Your task to perform on an android device: turn on improve location accuracy Image 0: 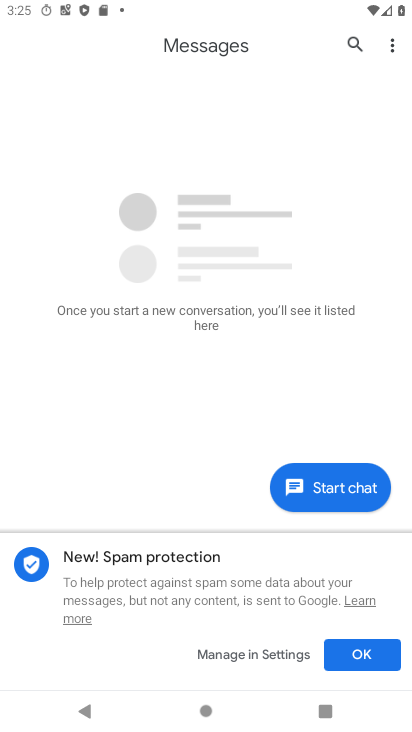
Step 0: drag from (224, 16) to (244, 555)
Your task to perform on an android device: turn on improve location accuracy Image 1: 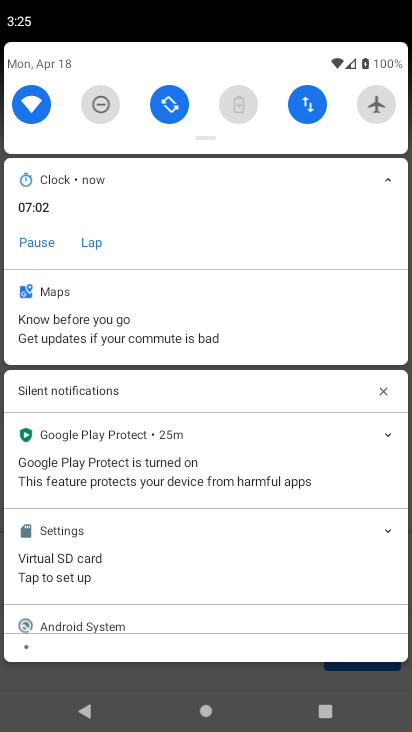
Step 1: drag from (141, 57) to (243, 674)
Your task to perform on an android device: turn on improve location accuracy Image 2: 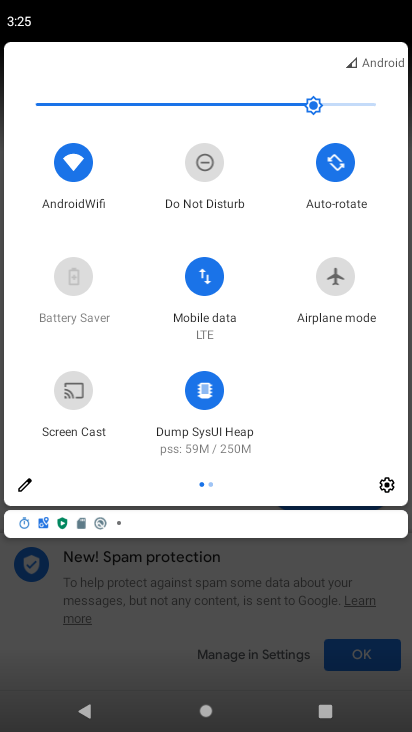
Step 2: click (386, 490)
Your task to perform on an android device: turn on improve location accuracy Image 3: 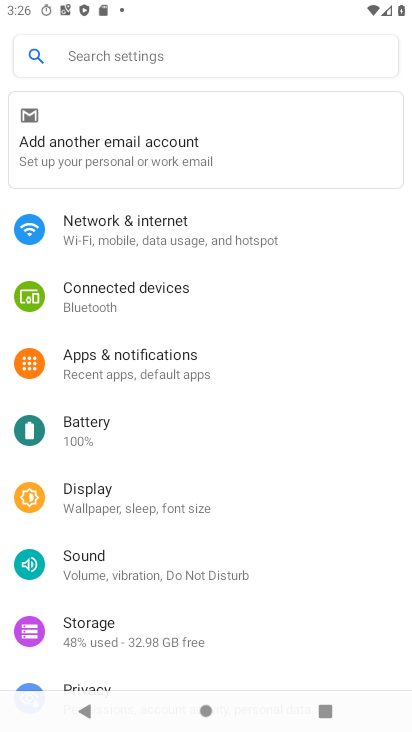
Step 3: drag from (175, 574) to (164, 205)
Your task to perform on an android device: turn on improve location accuracy Image 4: 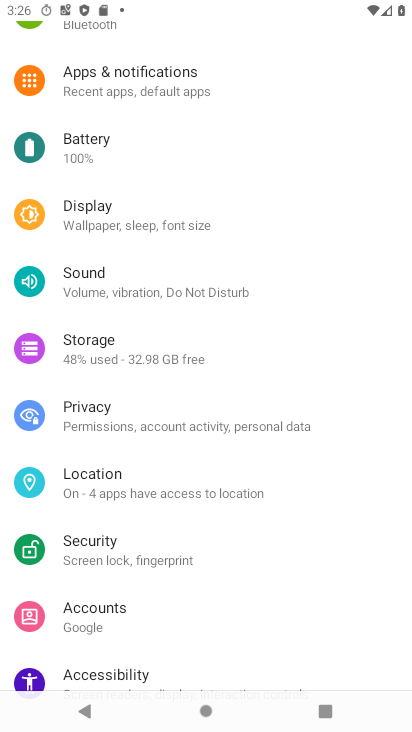
Step 4: click (85, 484)
Your task to perform on an android device: turn on improve location accuracy Image 5: 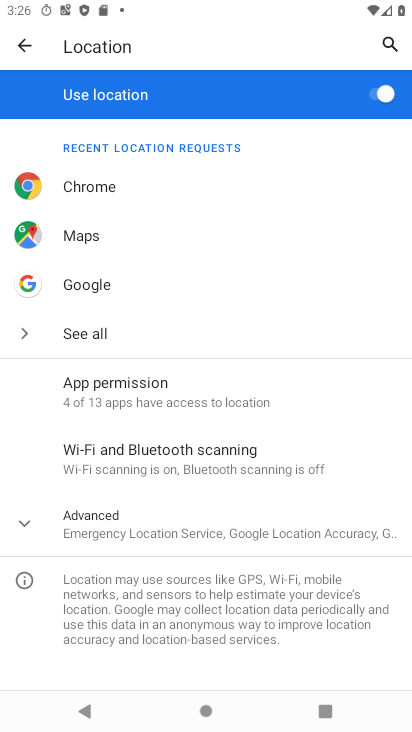
Step 5: click (113, 518)
Your task to perform on an android device: turn on improve location accuracy Image 6: 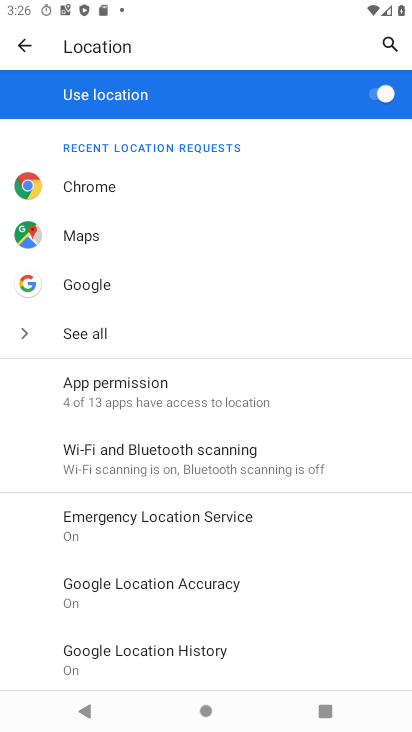
Step 6: click (150, 593)
Your task to perform on an android device: turn on improve location accuracy Image 7: 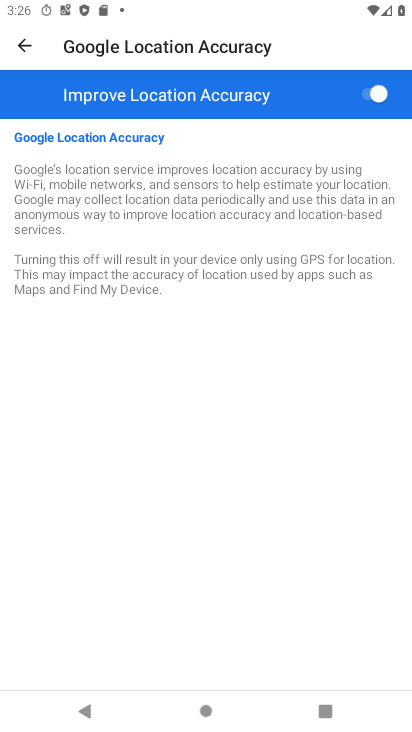
Step 7: task complete